Your task to perform on an android device: check out phone information Image 0: 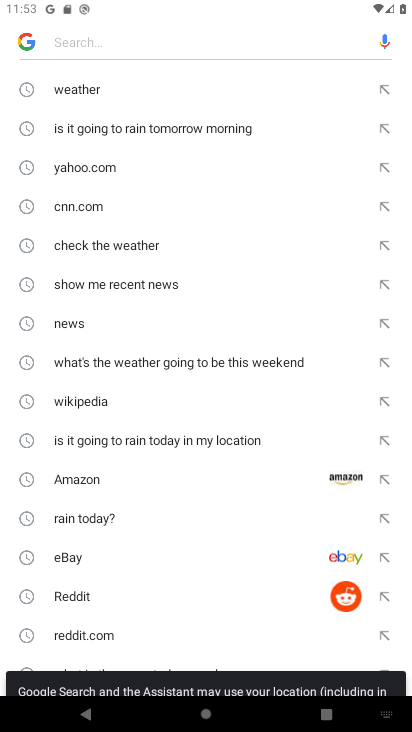
Step 0: press home button
Your task to perform on an android device: check out phone information Image 1: 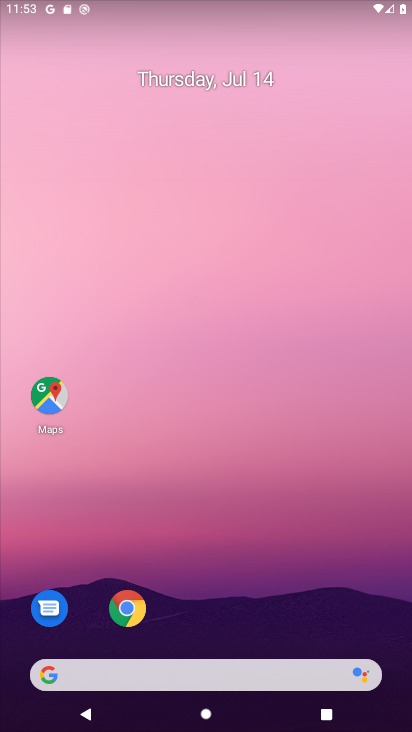
Step 1: drag from (217, 565) to (188, 208)
Your task to perform on an android device: check out phone information Image 2: 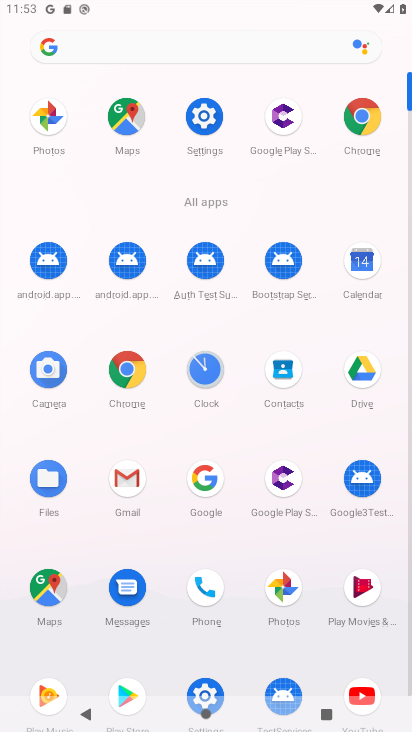
Step 2: click (202, 111)
Your task to perform on an android device: check out phone information Image 3: 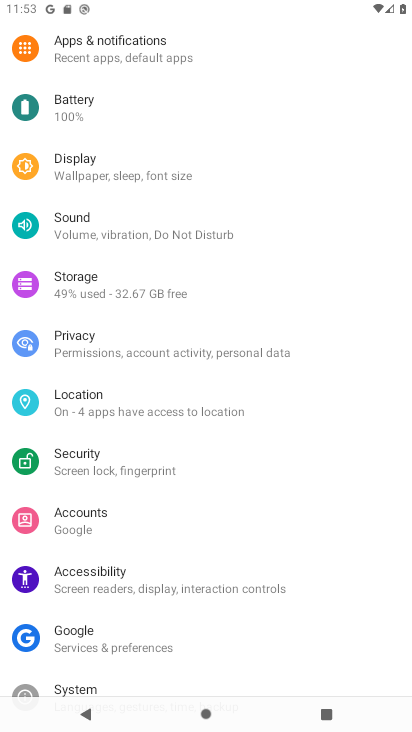
Step 3: drag from (206, 633) to (147, 240)
Your task to perform on an android device: check out phone information Image 4: 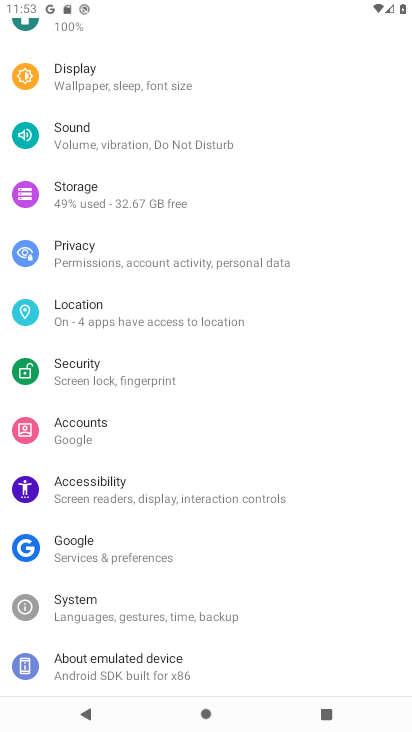
Step 4: click (108, 659)
Your task to perform on an android device: check out phone information Image 5: 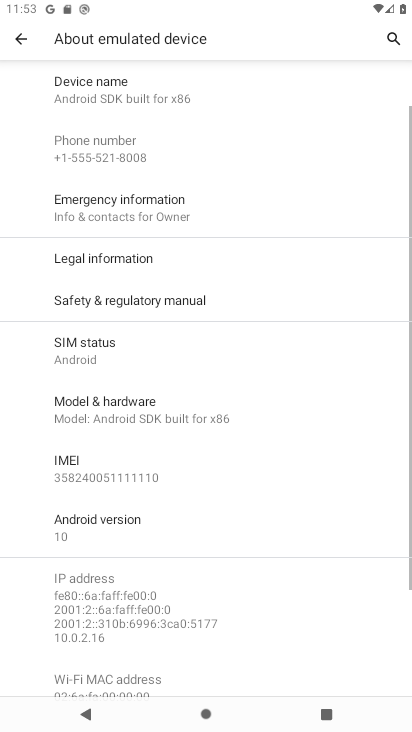
Step 5: task complete